Your task to perform on an android device: read, delete, or share a saved page in the chrome app Image 0: 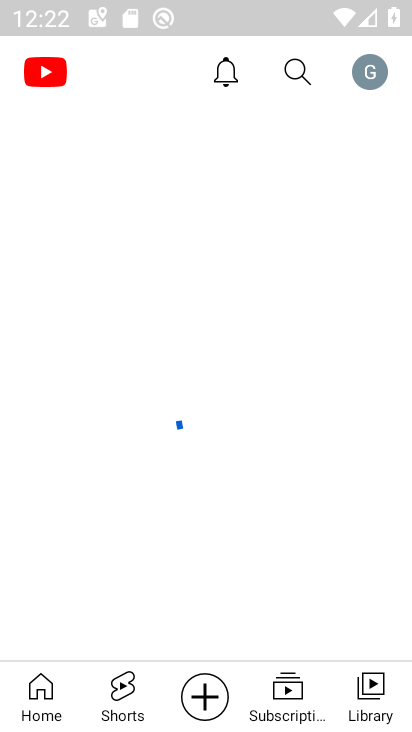
Step 0: press home button
Your task to perform on an android device: read, delete, or share a saved page in the chrome app Image 1: 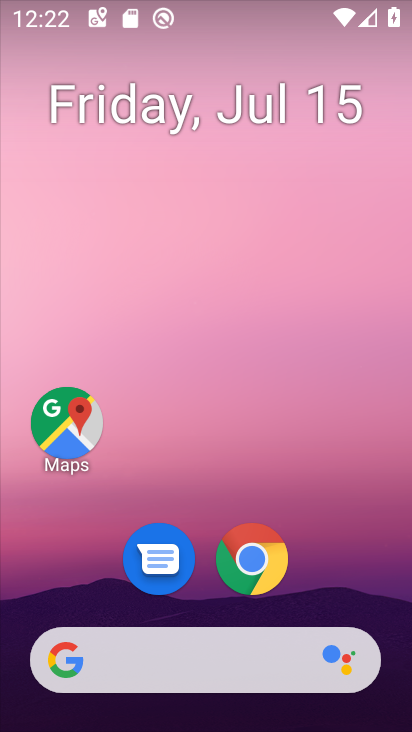
Step 1: drag from (366, 552) to (375, 164)
Your task to perform on an android device: read, delete, or share a saved page in the chrome app Image 2: 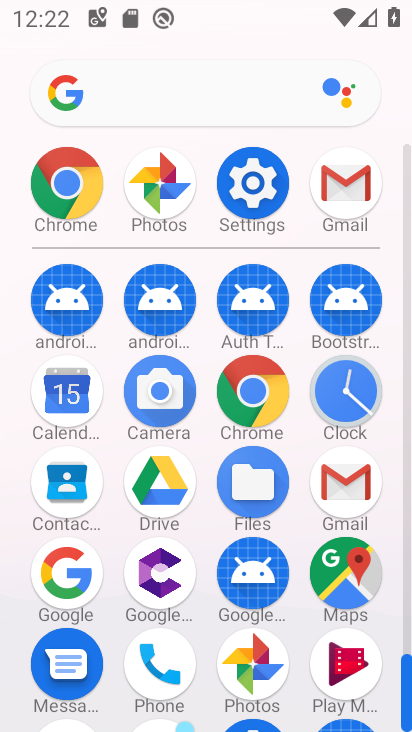
Step 2: click (264, 385)
Your task to perform on an android device: read, delete, or share a saved page in the chrome app Image 3: 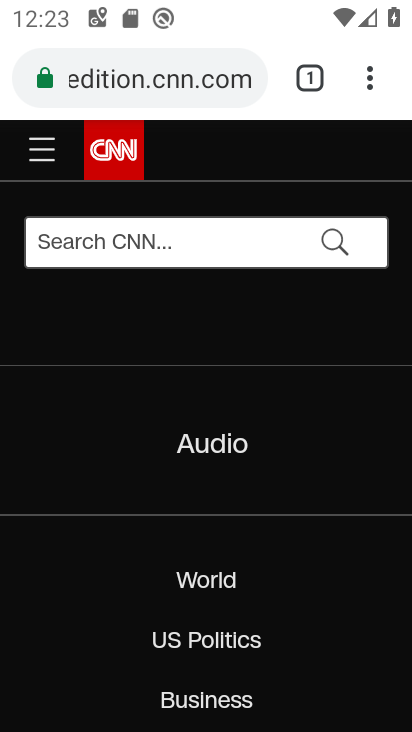
Step 3: click (369, 89)
Your task to perform on an android device: read, delete, or share a saved page in the chrome app Image 4: 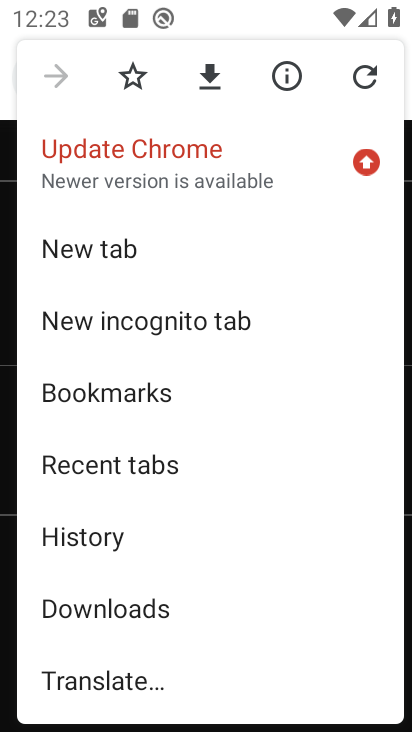
Step 4: drag from (331, 422) to (333, 358)
Your task to perform on an android device: read, delete, or share a saved page in the chrome app Image 5: 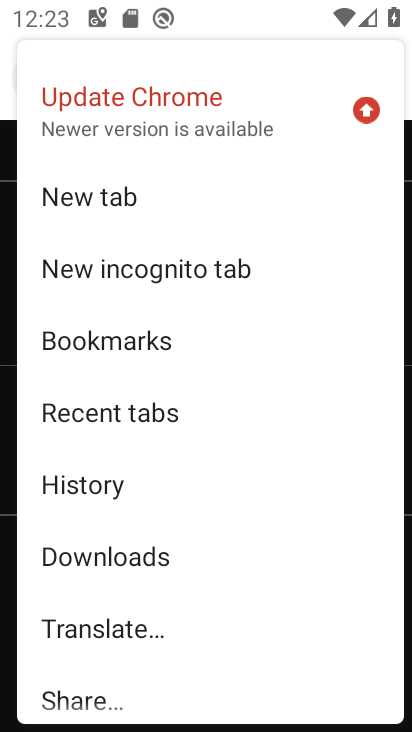
Step 5: drag from (325, 450) to (325, 390)
Your task to perform on an android device: read, delete, or share a saved page in the chrome app Image 6: 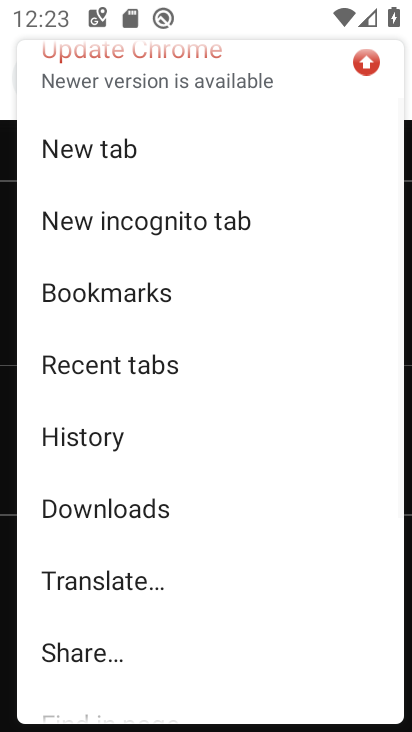
Step 6: drag from (315, 451) to (316, 385)
Your task to perform on an android device: read, delete, or share a saved page in the chrome app Image 7: 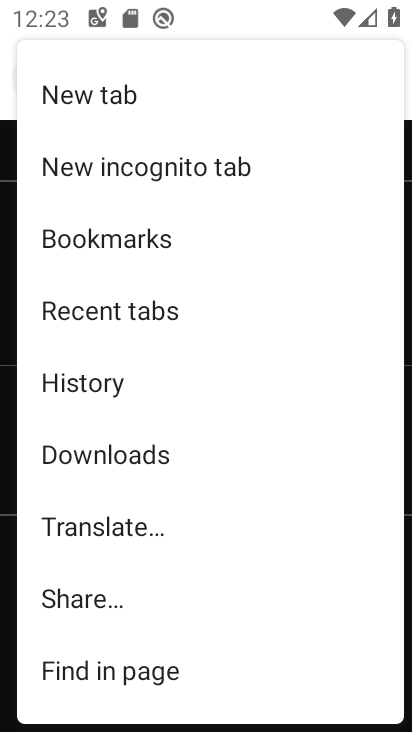
Step 7: drag from (305, 485) to (314, 410)
Your task to perform on an android device: read, delete, or share a saved page in the chrome app Image 8: 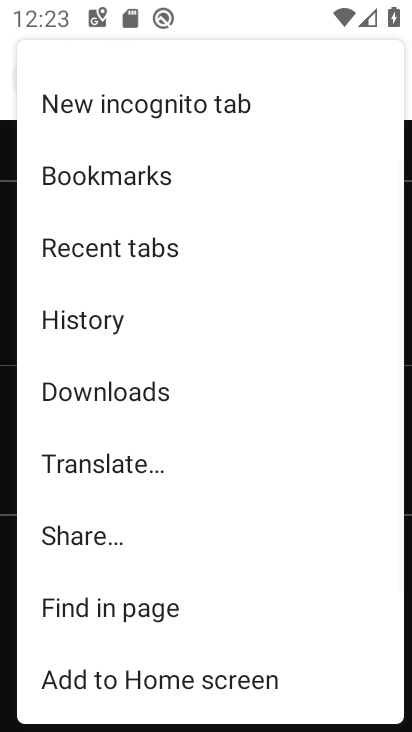
Step 8: drag from (297, 513) to (304, 423)
Your task to perform on an android device: read, delete, or share a saved page in the chrome app Image 9: 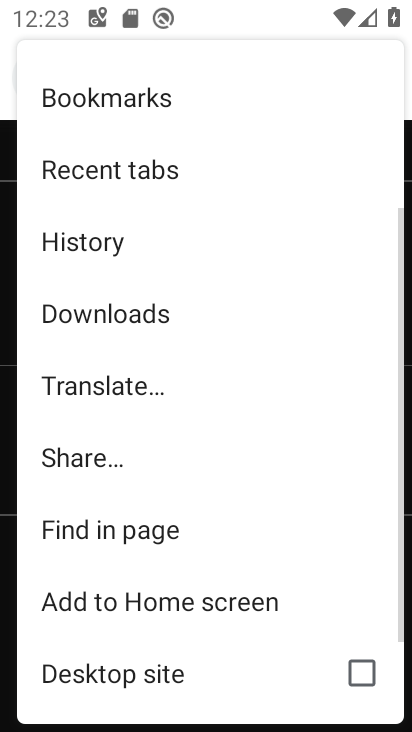
Step 9: click (204, 311)
Your task to perform on an android device: read, delete, or share a saved page in the chrome app Image 10: 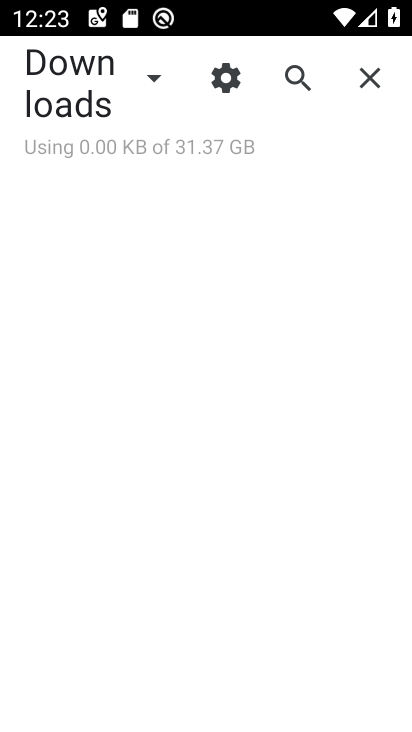
Step 10: click (152, 82)
Your task to perform on an android device: read, delete, or share a saved page in the chrome app Image 11: 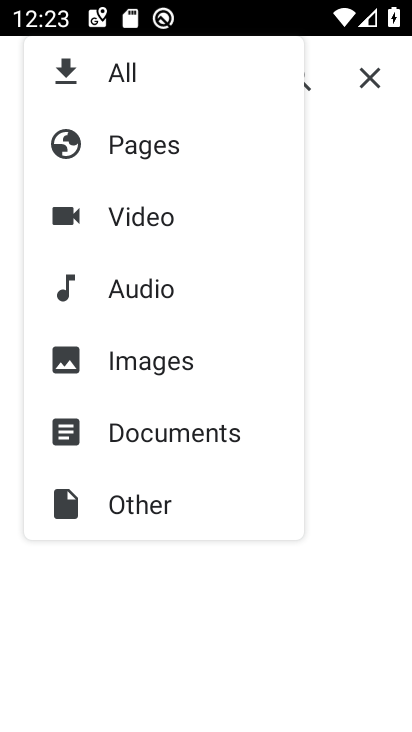
Step 11: click (163, 155)
Your task to perform on an android device: read, delete, or share a saved page in the chrome app Image 12: 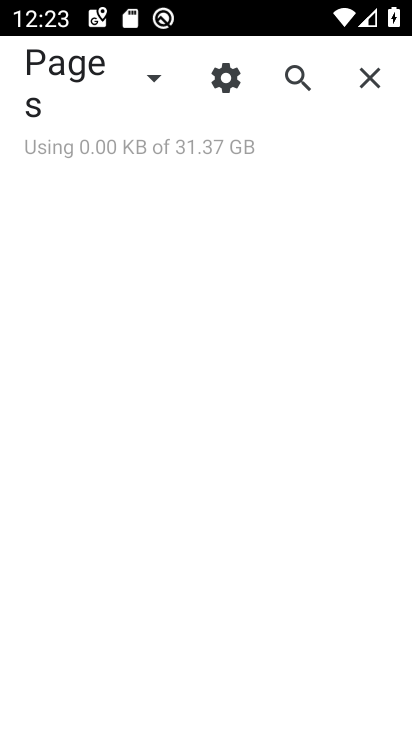
Step 12: task complete